Your task to perform on an android device: What is the news today? Image 0: 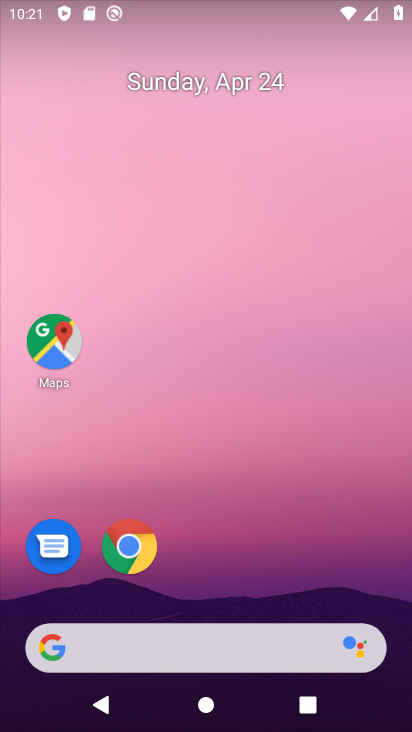
Step 0: drag from (273, 593) to (251, 76)
Your task to perform on an android device: What is the news today? Image 1: 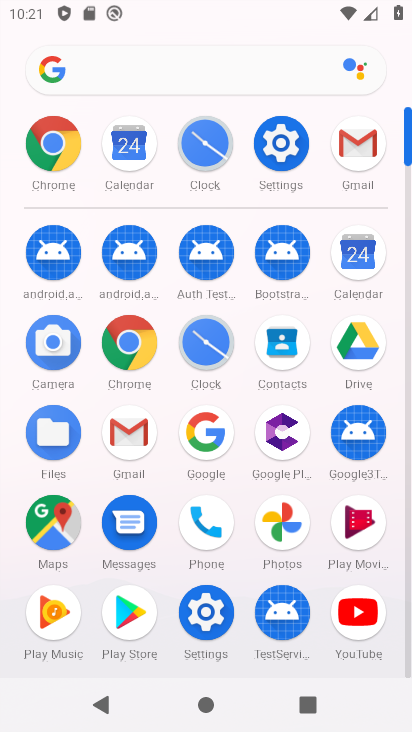
Step 1: click (212, 446)
Your task to perform on an android device: What is the news today? Image 2: 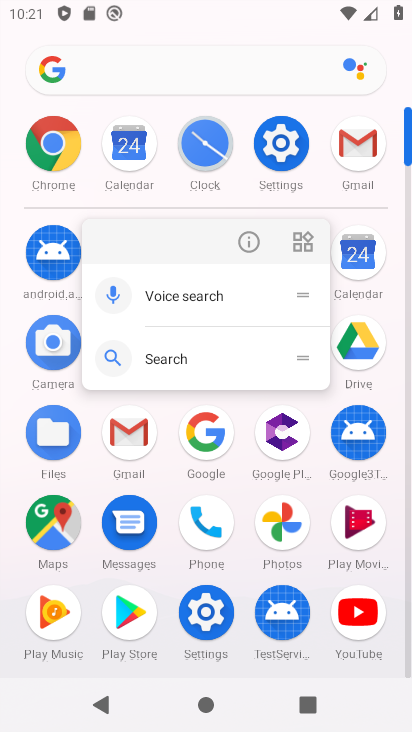
Step 2: click (212, 446)
Your task to perform on an android device: What is the news today? Image 3: 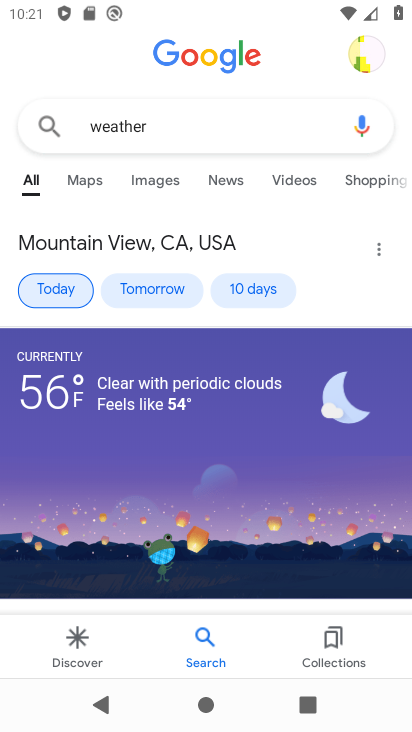
Step 3: click (178, 133)
Your task to perform on an android device: What is the news today? Image 4: 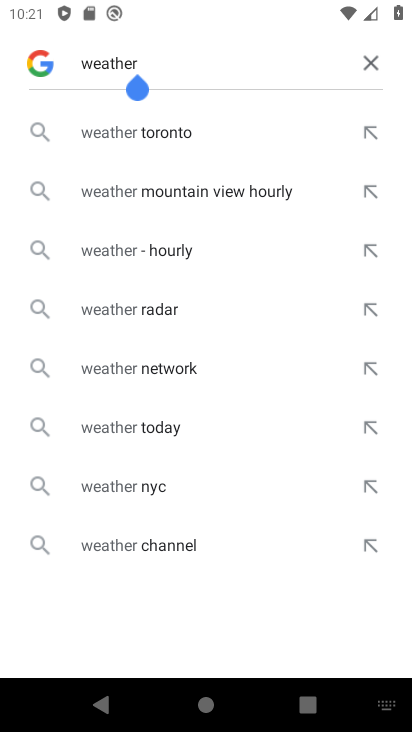
Step 4: click (375, 72)
Your task to perform on an android device: What is the news today? Image 5: 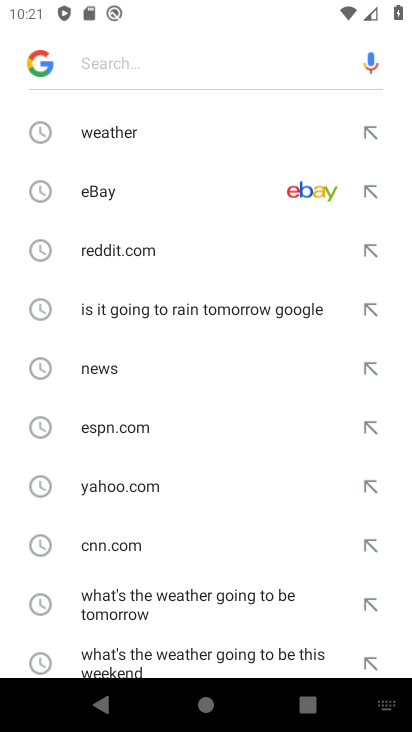
Step 5: click (125, 375)
Your task to perform on an android device: What is the news today? Image 6: 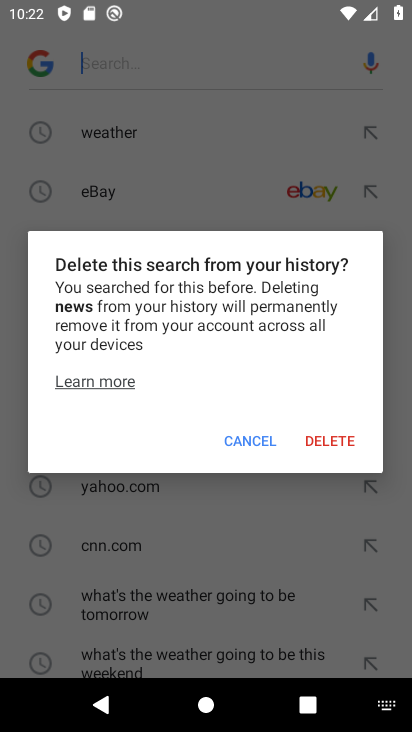
Step 6: click (252, 443)
Your task to perform on an android device: What is the news today? Image 7: 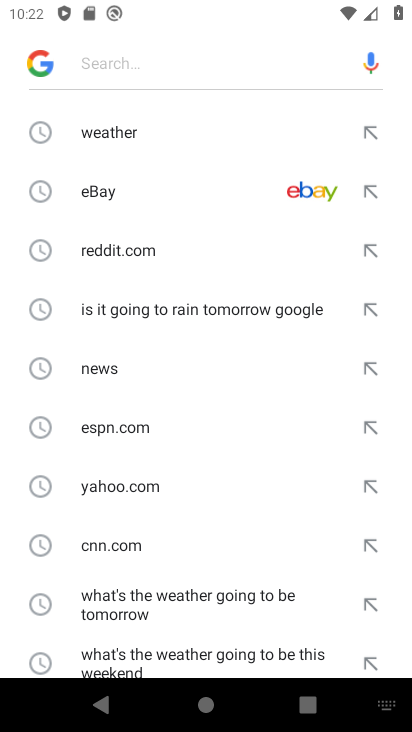
Step 7: click (132, 385)
Your task to perform on an android device: What is the news today? Image 8: 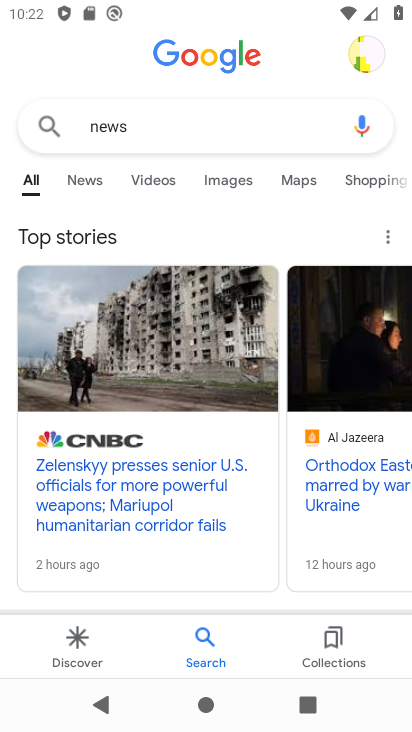
Step 8: task complete